Your task to perform on an android device: Toggle the flashlight Image 0: 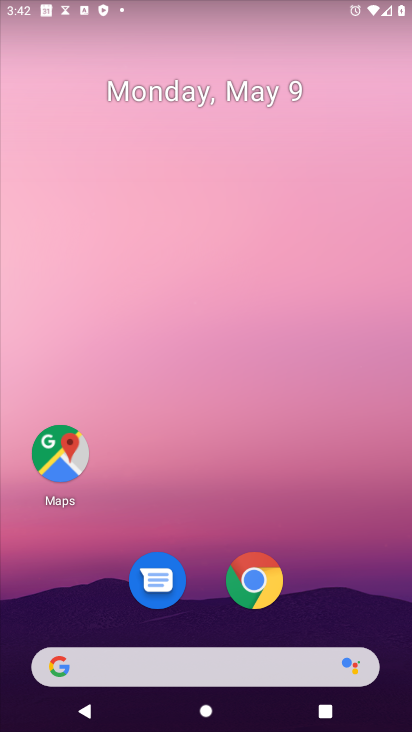
Step 0: drag from (238, 12) to (161, 556)
Your task to perform on an android device: Toggle the flashlight Image 1: 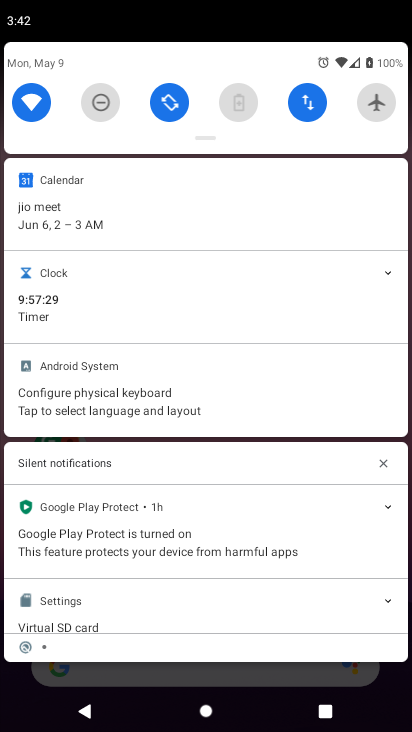
Step 1: task complete